Your task to perform on an android device: Go to privacy settings Image 0: 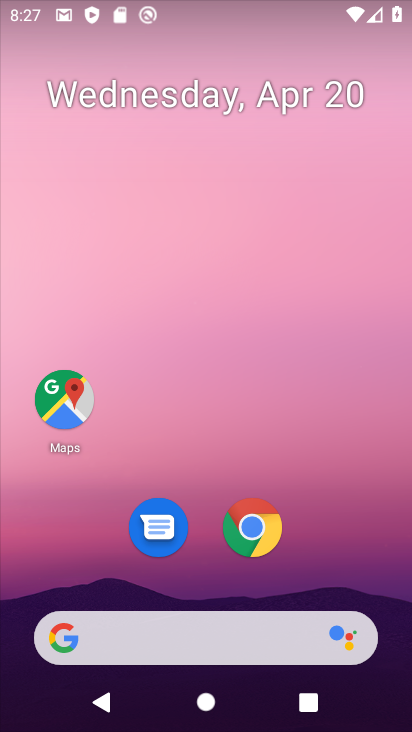
Step 0: drag from (337, 569) to (350, 30)
Your task to perform on an android device: Go to privacy settings Image 1: 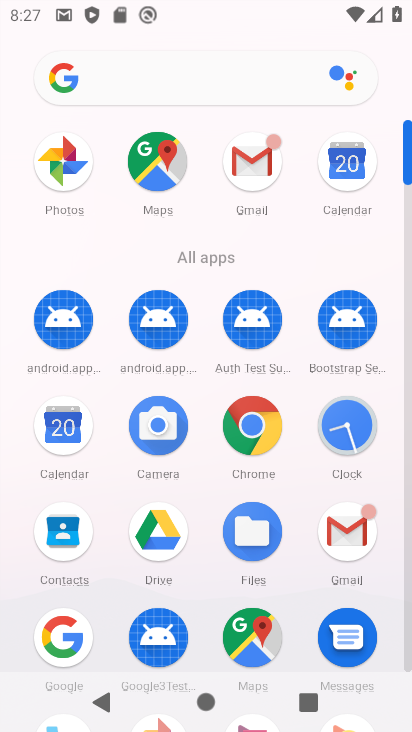
Step 1: click (404, 654)
Your task to perform on an android device: Go to privacy settings Image 2: 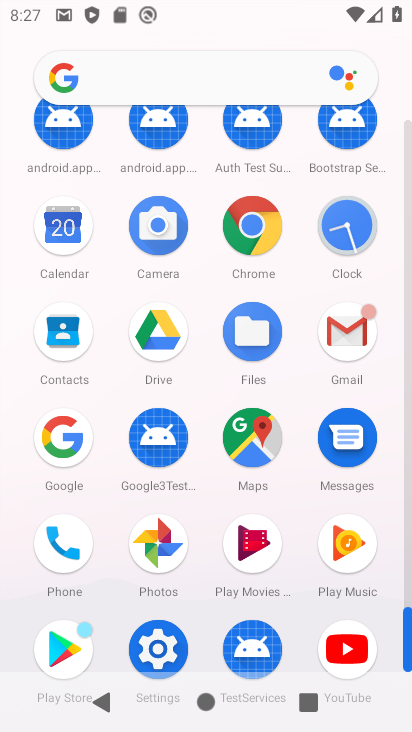
Step 2: click (148, 637)
Your task to perform on an android device: Go to privacy settings Image 3: 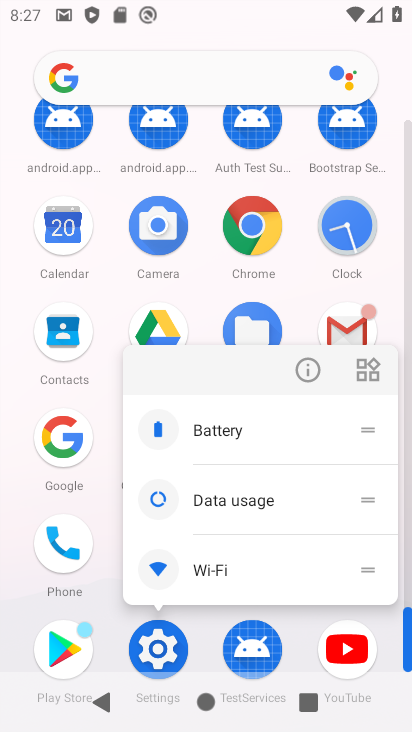
Step 3: click (154, 665)
Your task to perform on an android device: Go to privacy settings Image 4: 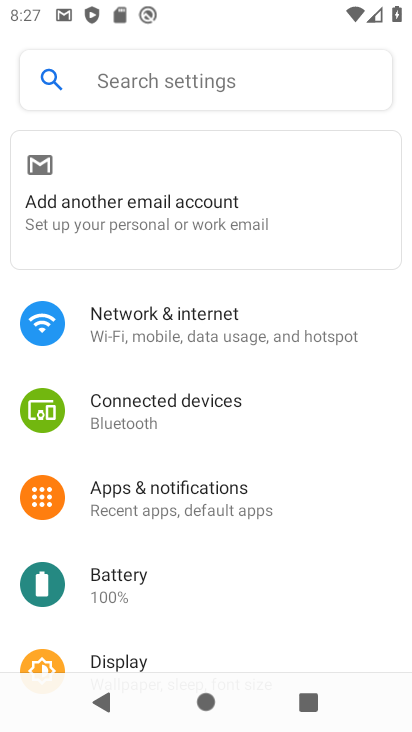
Step 4: drag from (298, 571) to (255, 350)
Your task to perform on an android device: Go to privacy settings Image 5: 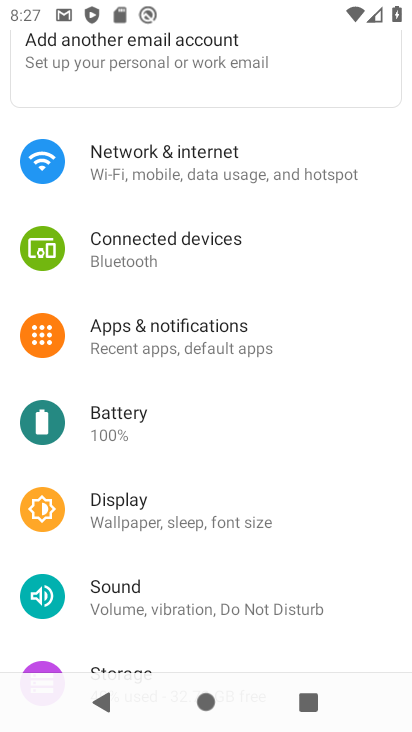
Step 5: drag from (243, 499) to (207, 192)
Your task to perform on an android device: Go to privacy settings Image 6: 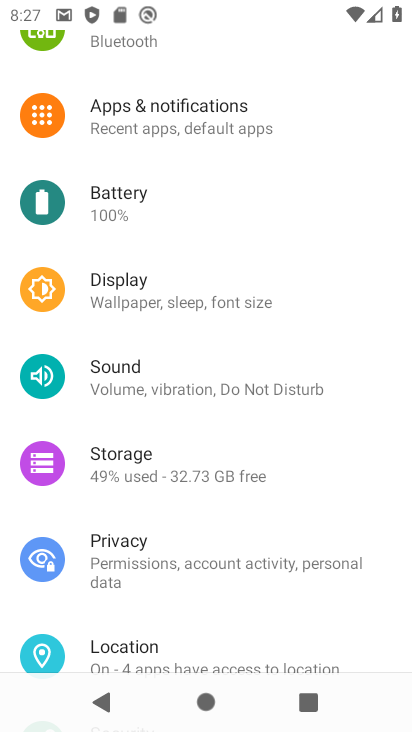
Step 6: click (118, 568)
Your task to perform on an android device: Go to privacy settings Image 7: 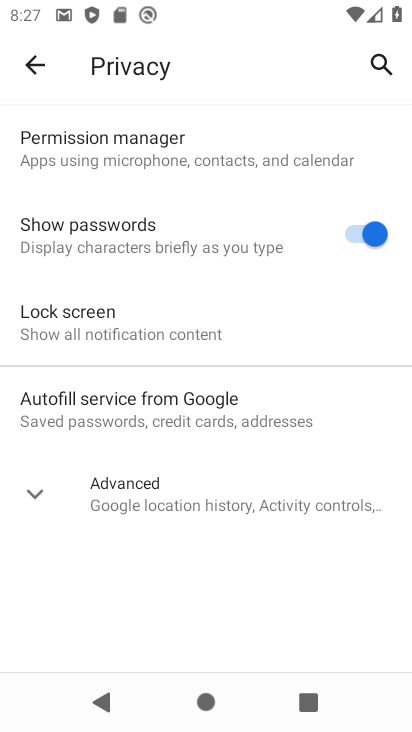
Step 7: task complete